Your task to perform on an android device: Open Chrome and go to settings Image 0: 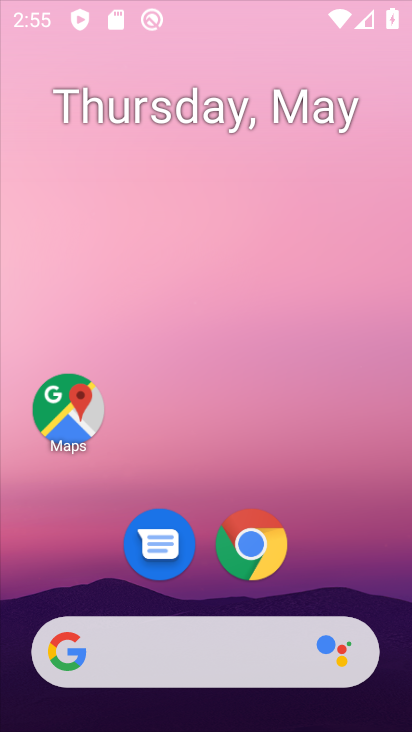
Step 0: drag from (83, 615) to (194, 96)
Your task to perform on an android device: Open Chrome and go to settings Image 1: 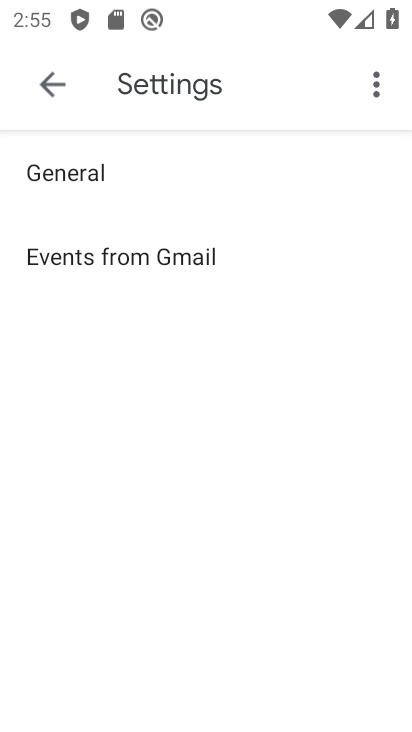
Step 1: press home button
Your task to perform on an android device: Open Chrome and go to settings Image 2: 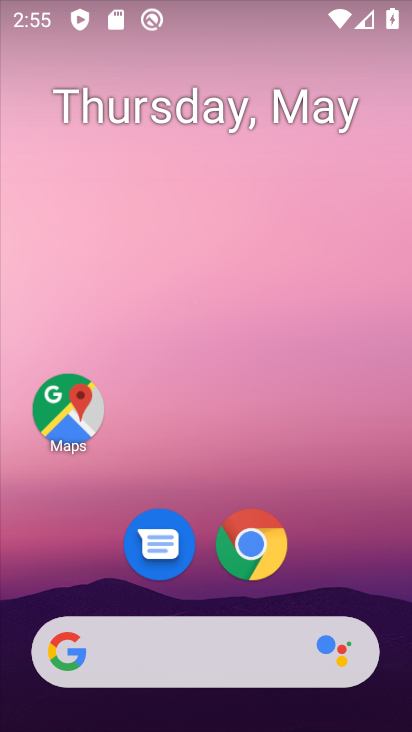
Step 2: click (238, 543)
Your task to perform on an android device: Open Chrome and go to settings Image 3: 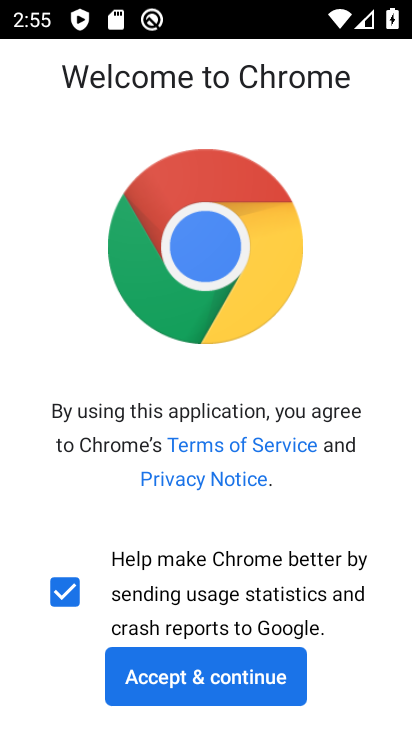
Step 3: click (254, 683)
Your task to perform on an android device: Open Chrome and go to settings Image 4: 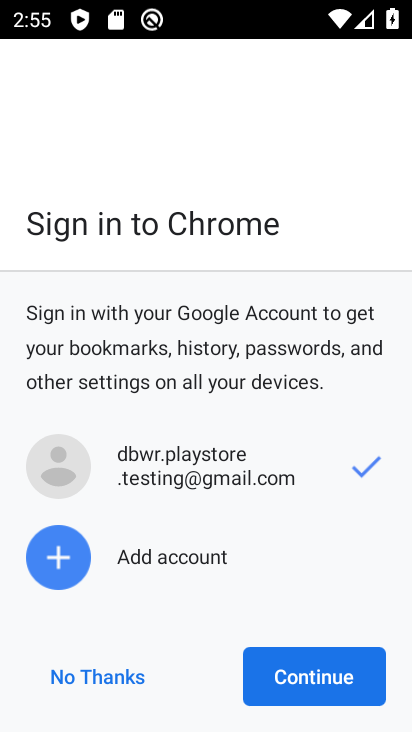
Step 4: click (337, 671)
Your task to perform on an android device: Open Chrome and go to settings Image 5: 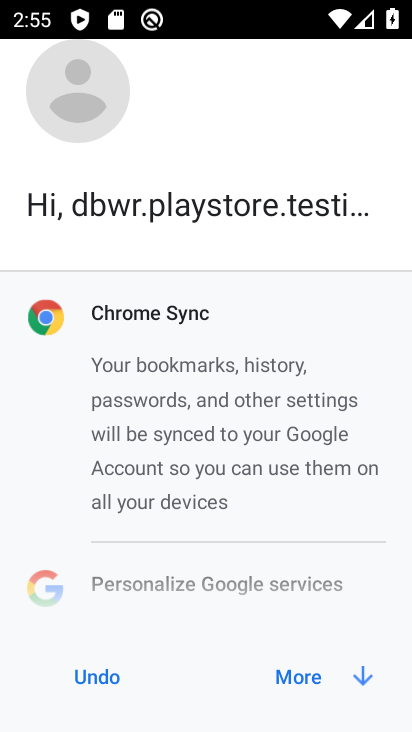
Step 5: click (337, 671)
Your task to perform on an android device: Open Chrome and go to settings Image 6: 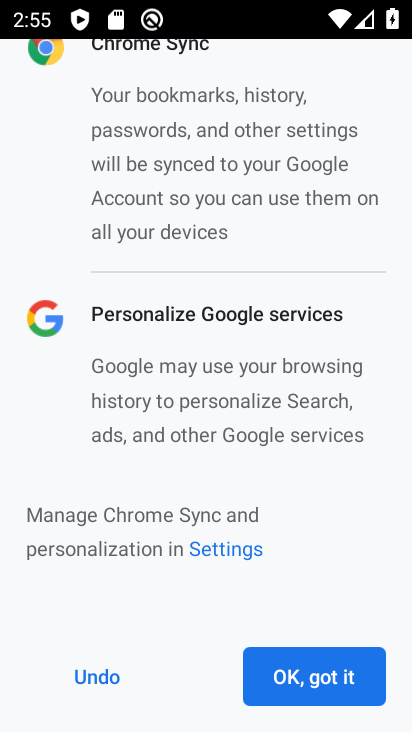
Step 6: click (337, 671)
Your task to perform on an android device: Open Chrome and go to settings Image 7: 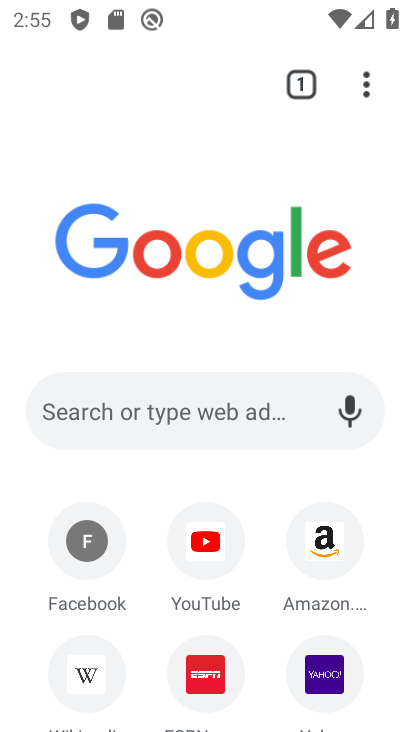
Step 7: task complete